Your task to perform on an android device: Open Amazon Image 0: 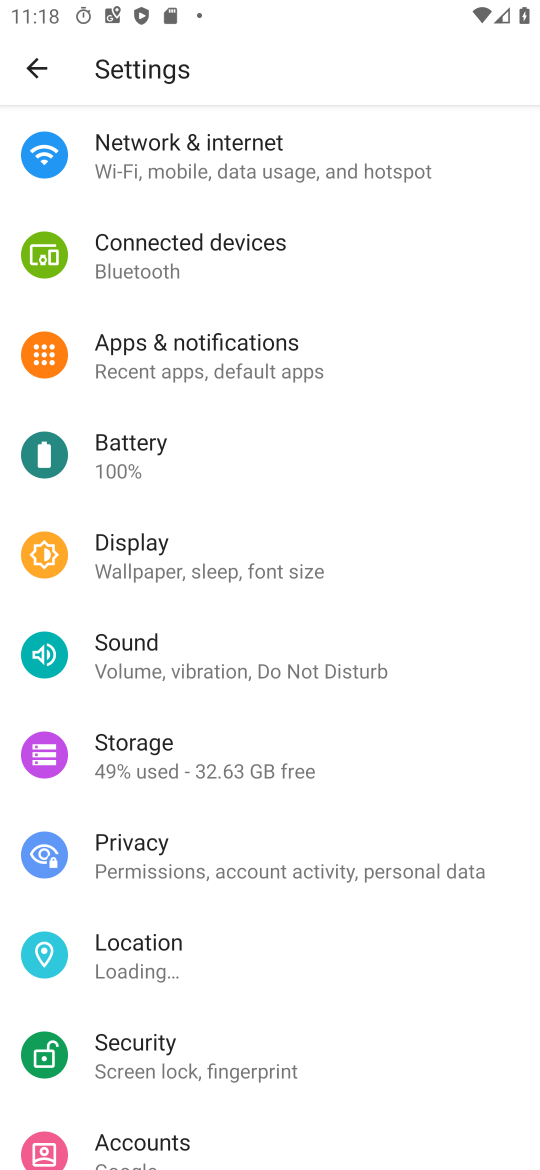
Step 0: click (32, 73)
Your task to perform on an android device: Open Amazon Image 1: 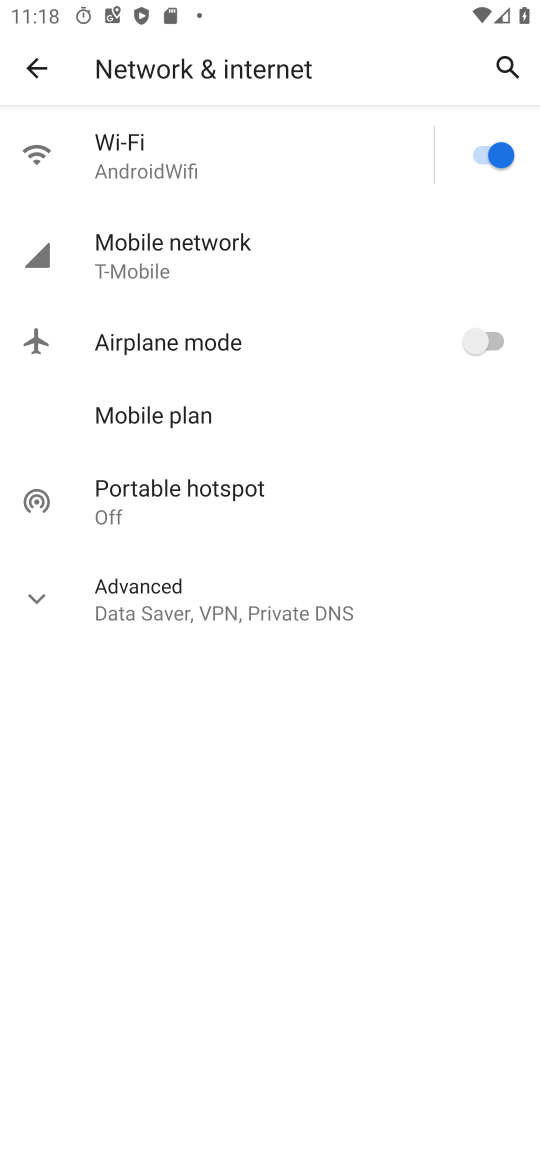
Step 1: click (29, 68)
Your task to perform on an android device: Open Amazon Image 2: 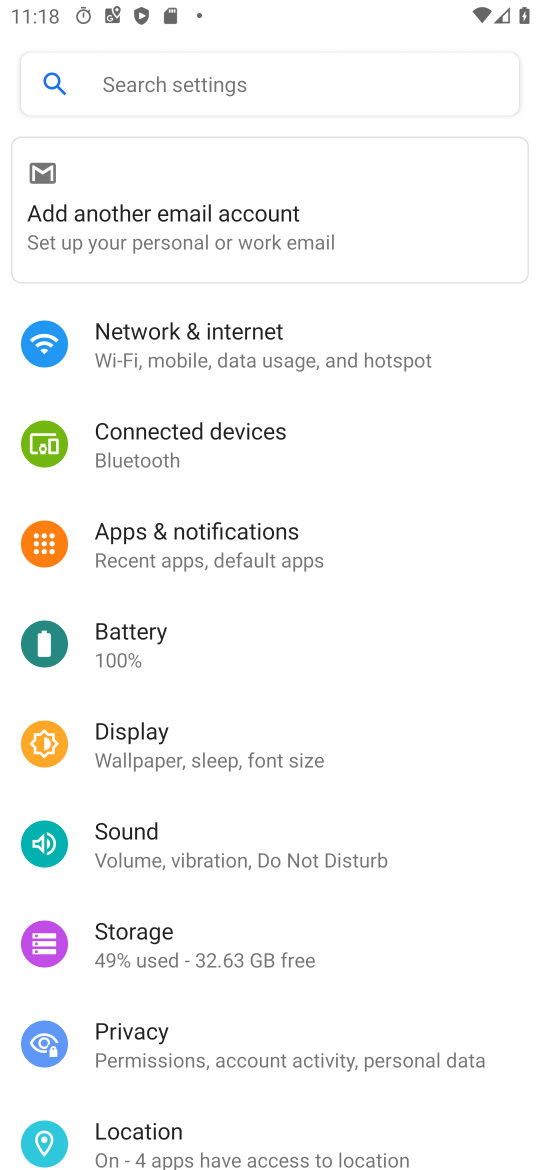
Step 2: press back button
Your task to perform on an android device: Open Amazon Image 3: 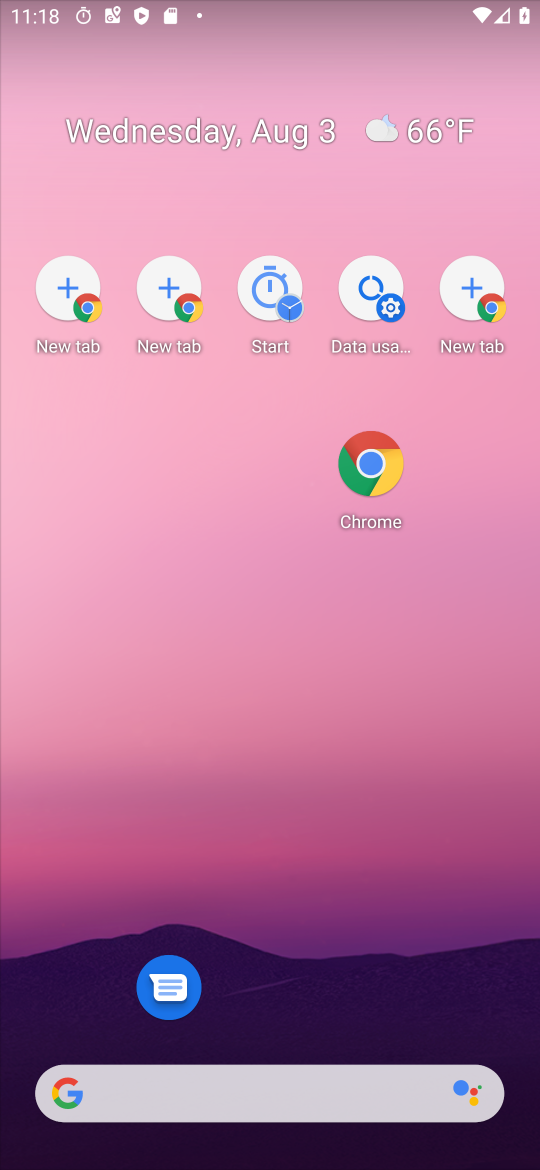
Step 3: drag from (237, 824) to (195, 96)
Your task to perform on an android device: Open Amazon Image 4: 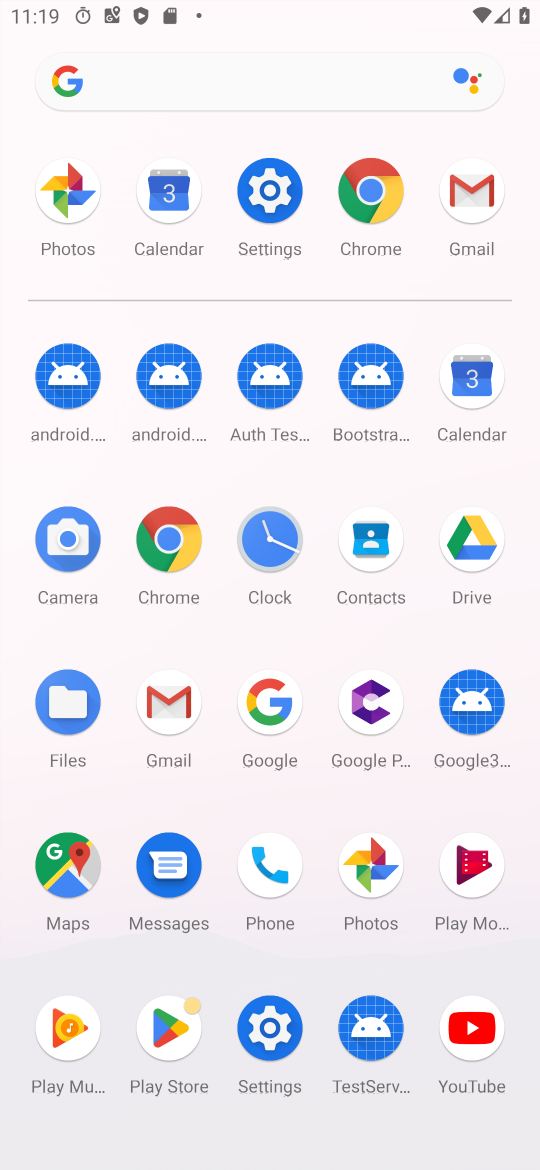
Step 4: click (373, 185)
Your task to perform on an android device: Open Amazon Image 5: 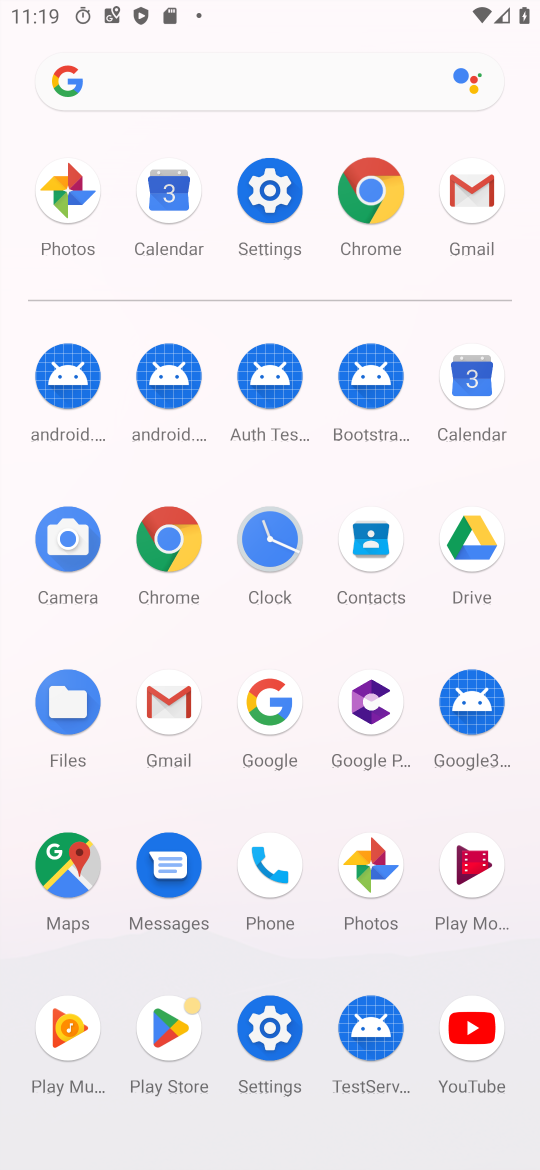
Step 5: click (375, 182)
Your task to perform on an android device: Open Amazon Image 6: 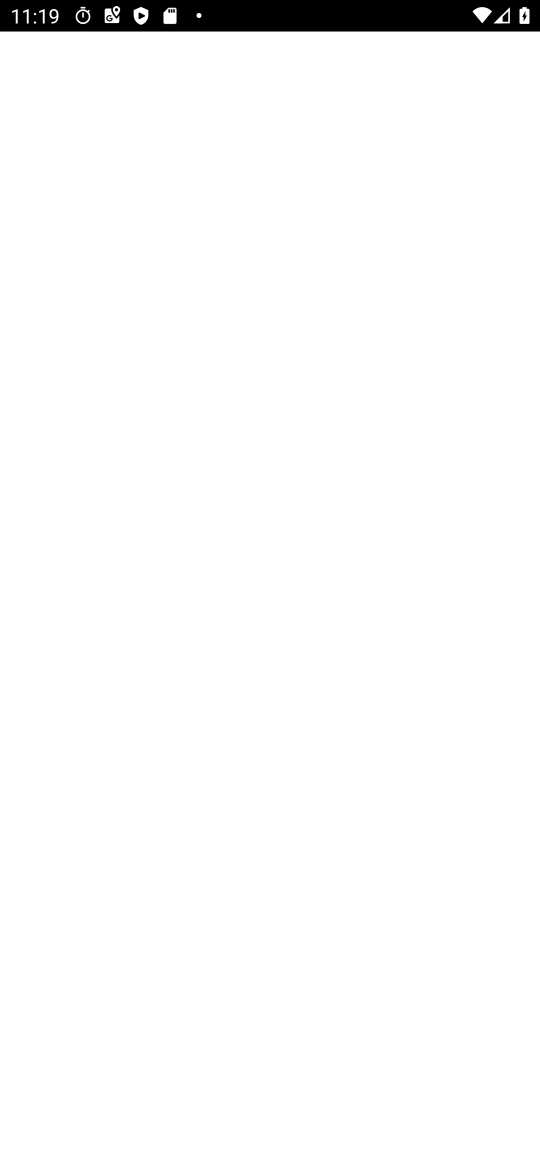
Step 6: click (379, 186)
Your task to perform on an android device: Open Amazon Image 7: 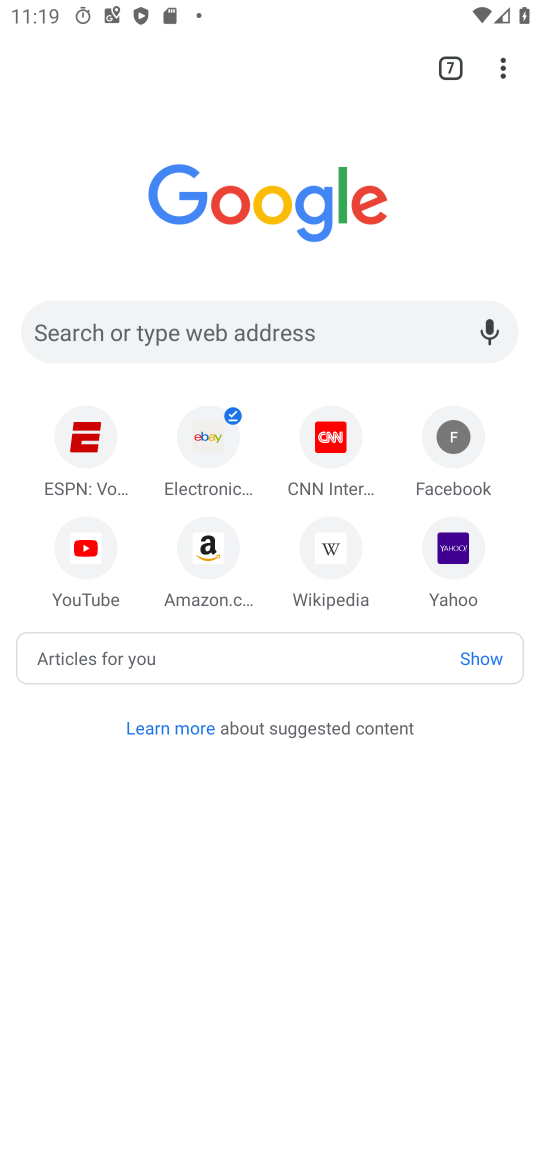
Step 7: click (208, 556)
Your task to perform on an android device: Open Amazon Image 8: 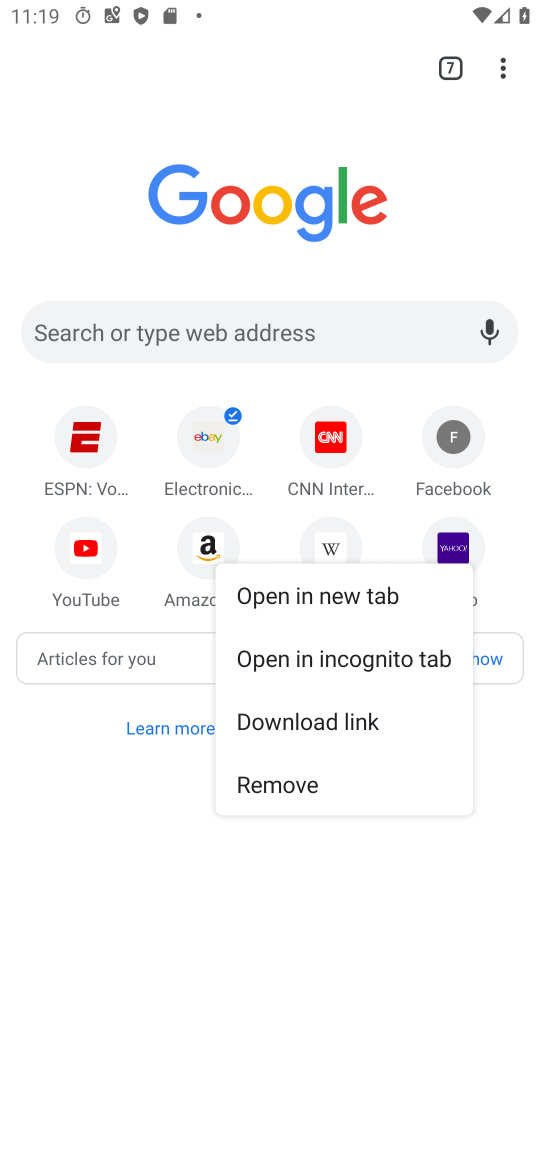
Step 8: click (216, 549)
Your task to perform on an android device: Open Amazon Image 9: 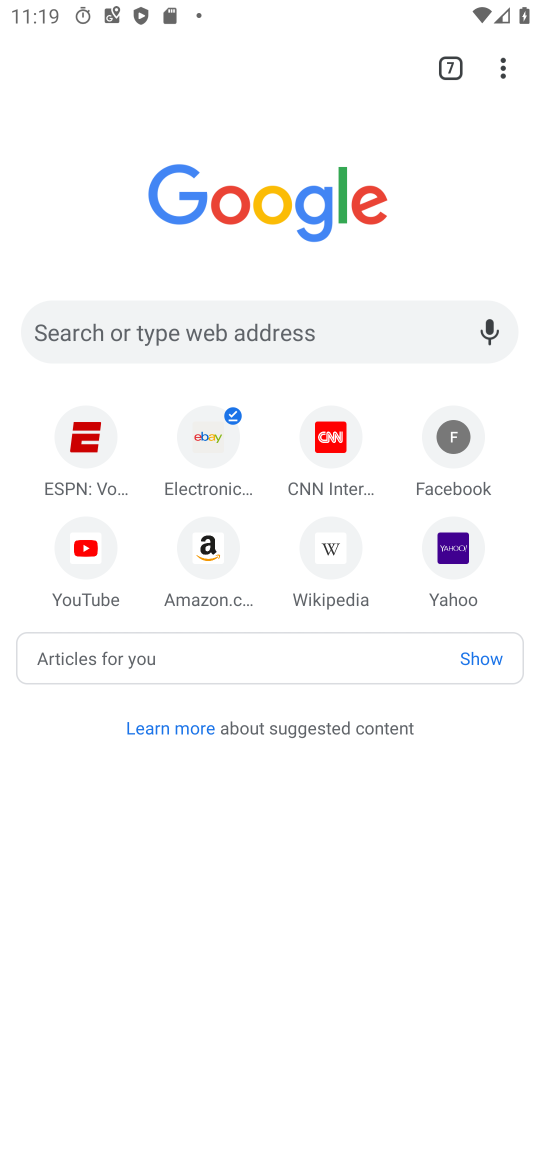
Step 9: click (211, 534)
Your task to perform on an android device: Open Amazon Image 10: 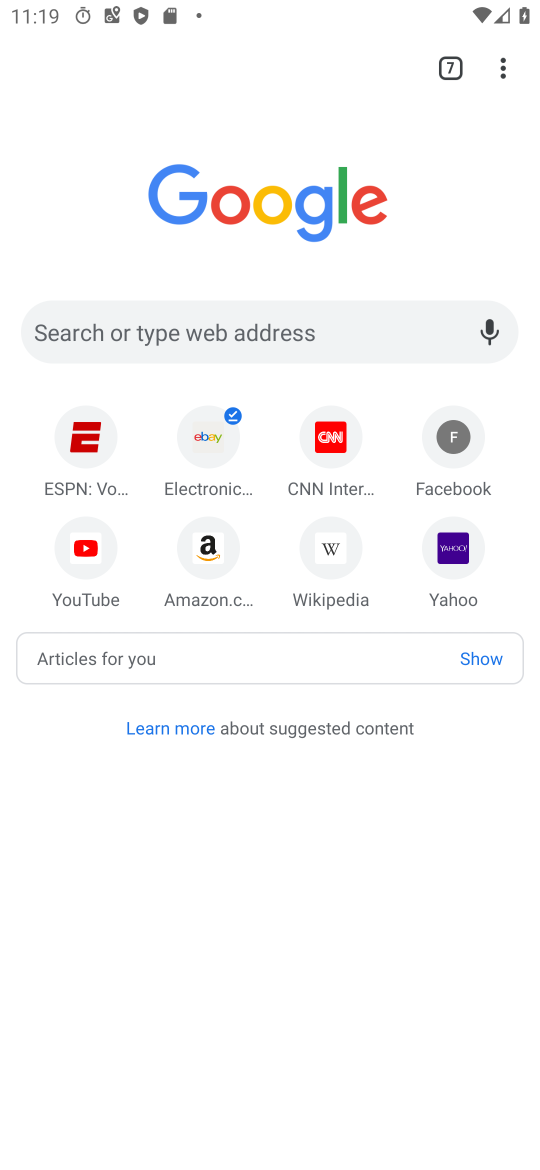
Step 10: click (211, 534)
Your task to perform on an android device: Open Amazon Image 11: 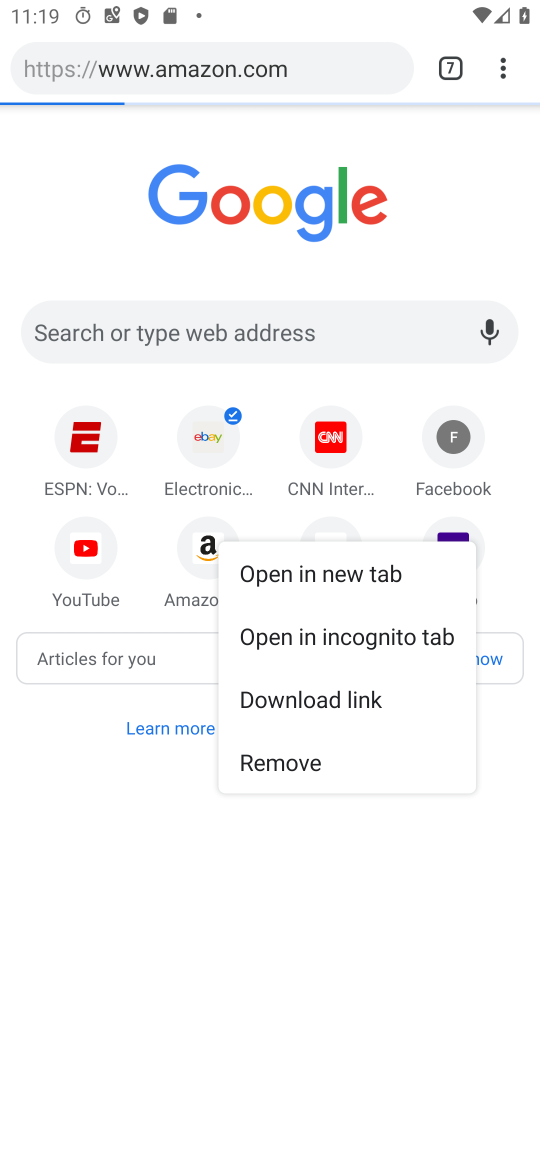
Step 11: click (217, 541)
Your task to perform on an android device: Open Amazon Image 12: 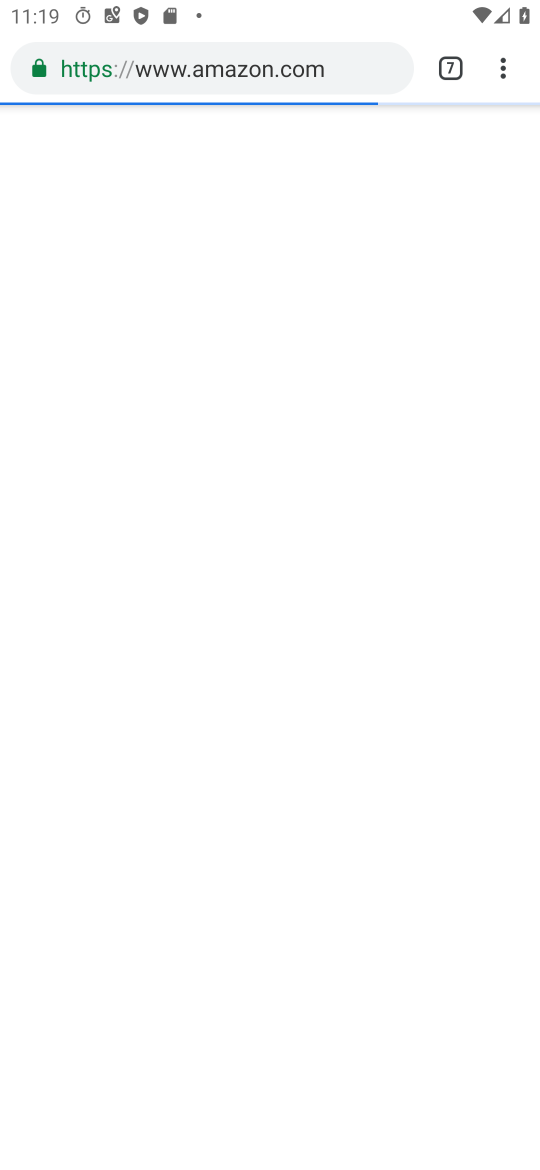
Step 12: click (218, 543)
Your task to perform on an android device: Open Amazon Image 13: 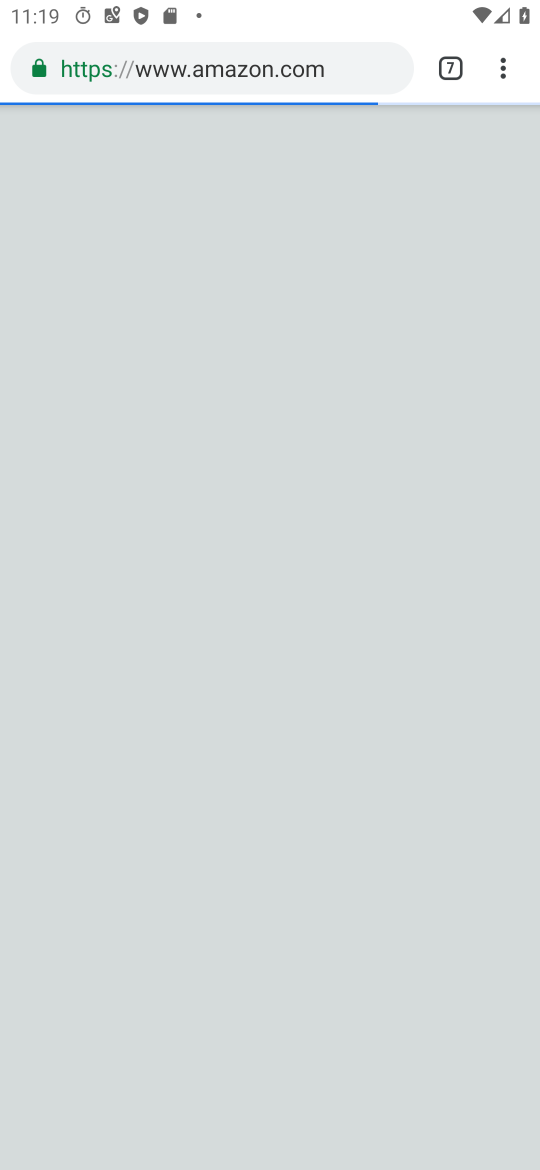
Step 13: click (218, 543)
Your task to perform on an android device: Open Amazon Image 14: 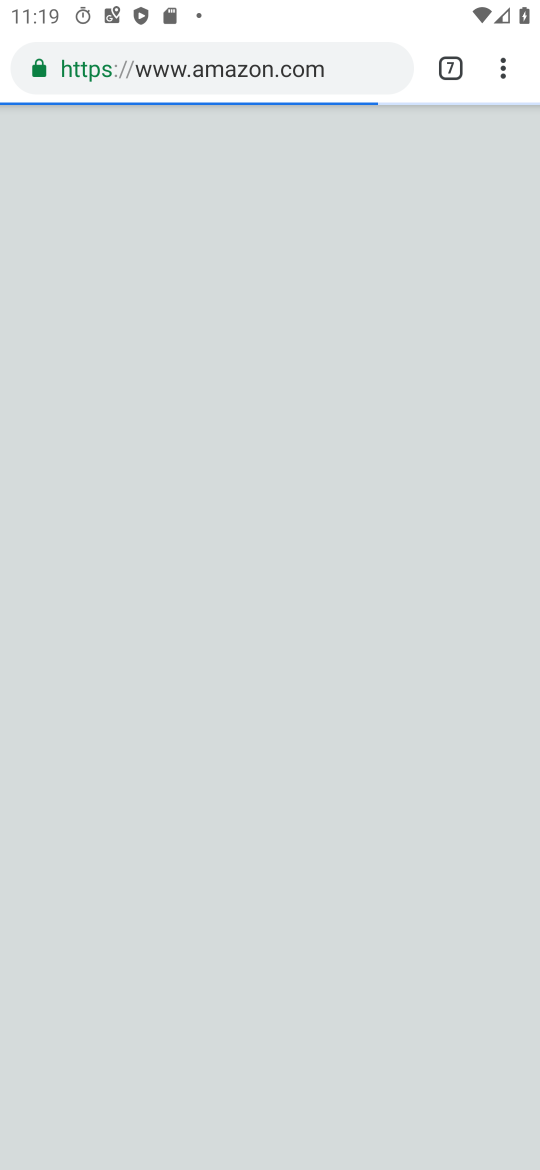
Step 14: click (221, 547)
Your task to perform on an android device: Open Amazon Image 15: 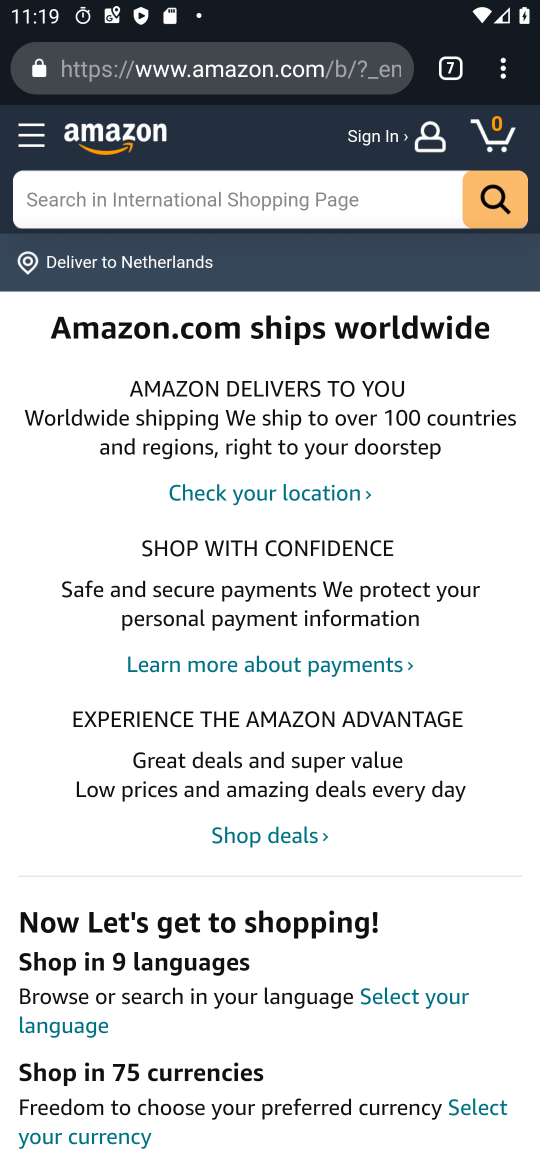
Step 15: task complete